Your task to perform on an android device: turn on javascript in the chrome app Image 0: 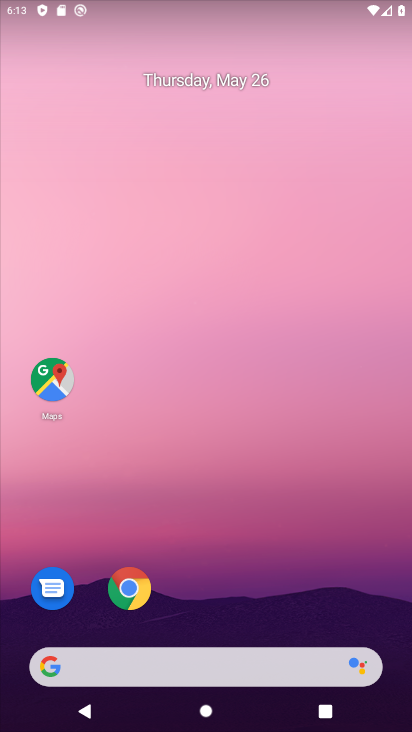
Step 0: drag from (395, 630) to (311, 84)
Your task to perform on an android device: turn on javascript in the chrome app Image 1: 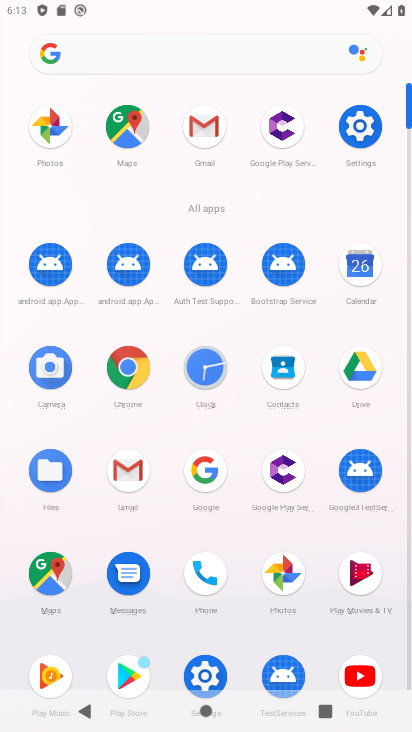
Step 1: click (121, 359)
Your task to perform on an android device: turn on javascript in the chrome app Image 2: 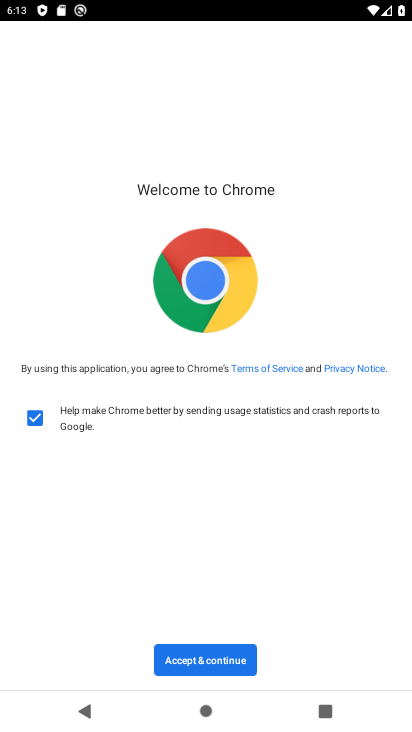
Step 2: click (201, 667)
Your task to perform on an android device: turn on javascript in the chrome app Image 3: 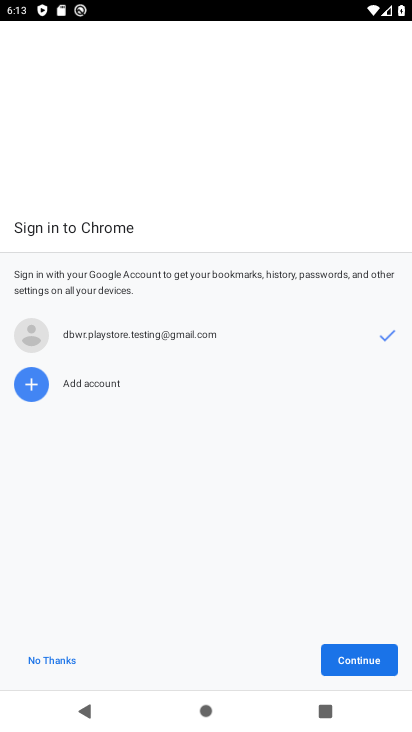
Step 3: click (202, 668)
Your task to perform on an android device: turn on javascript in the chrome app Image 4: 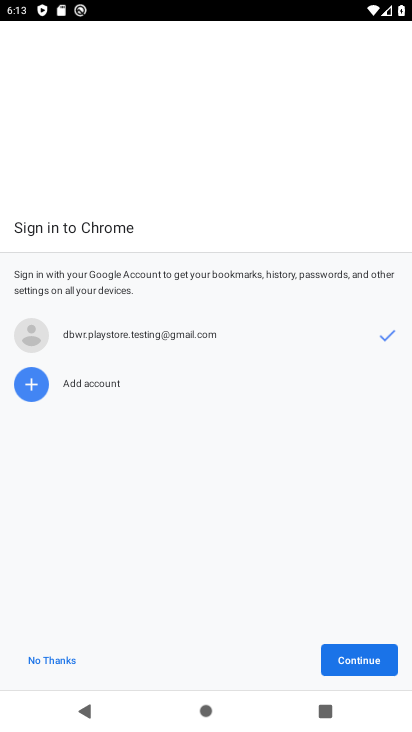
Step 4: click (385, 657)
Your task to perform on an android device: turn on javascript in the chrome app Image 5: 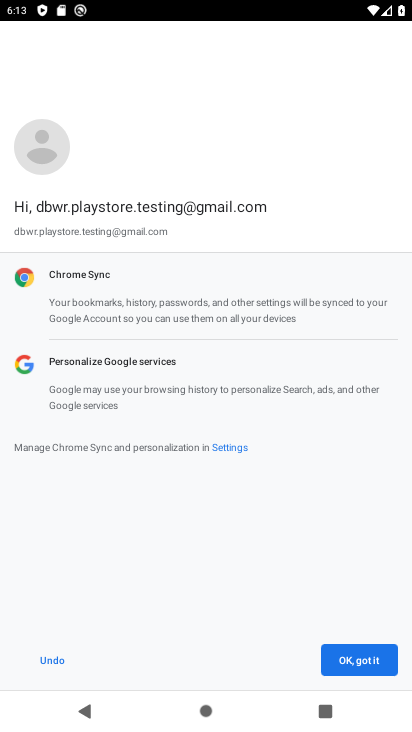
Step 5: click (385, 657)
Your task to perform on an android device: turn on javascript in the chrome app Image 6: 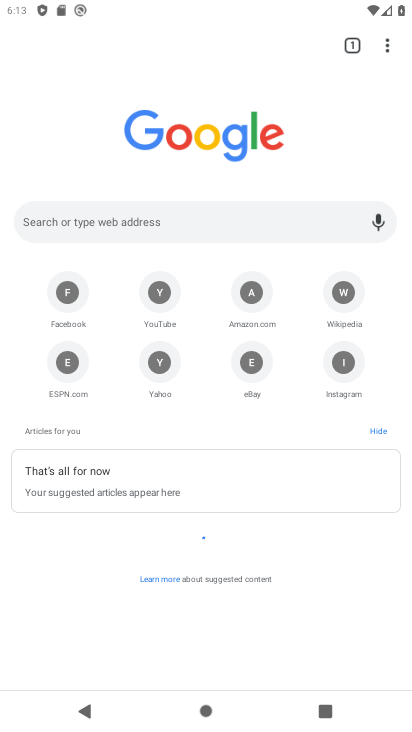
Step 6: click (386, 38)
Your task to perform on an android device: turn on javascript in the chrome app Image 7: 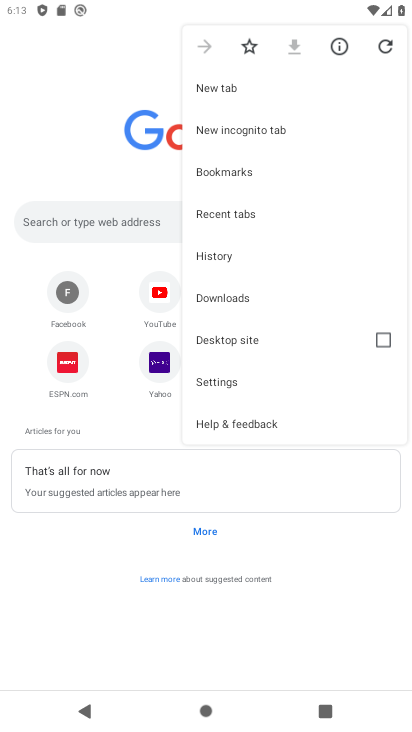
Step 7: click (247, 382)
Your task to perform on an android device: turn on javascript in the chrome app Image 8: 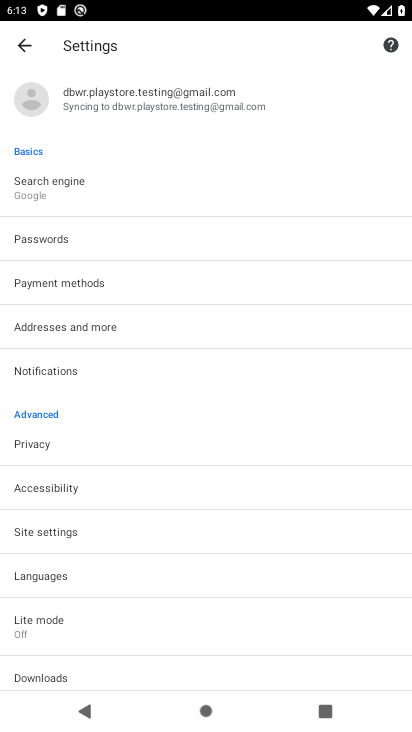
Step 8: click (62, 535)
Your task to perform on an android device: turn on javascript in the chrome app Image 9: 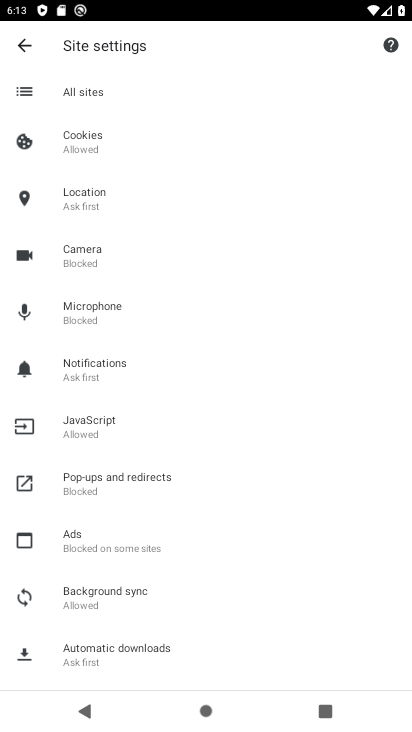
Step 9: drag from (85, 629) to (115, 245)
Your task to perform on an android device: turn on javascript in the chrome app Image 10: 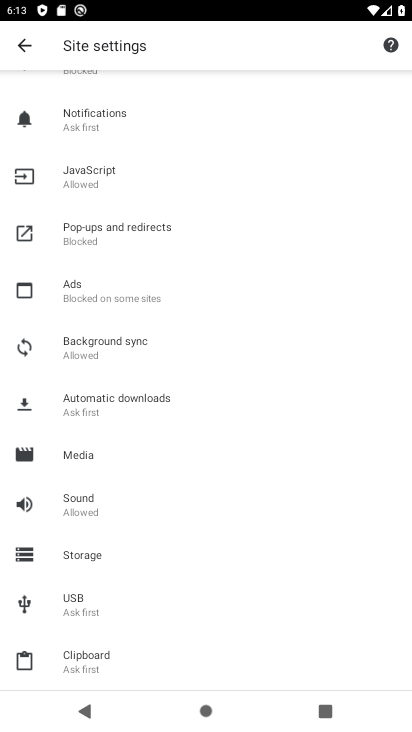
Step 10: click (63, 189)
Your task to perform on an android device: turn on javascript in the chrome app Image 11: 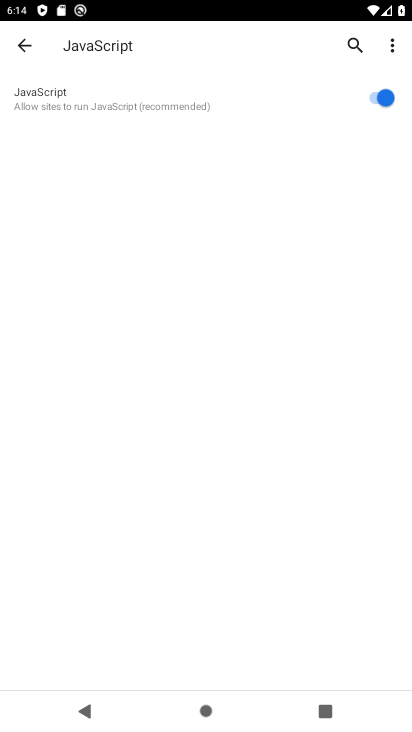
Step 11: task complete